Your task to perform on an android device: turn vacation reply on in the gmail app Image 0: 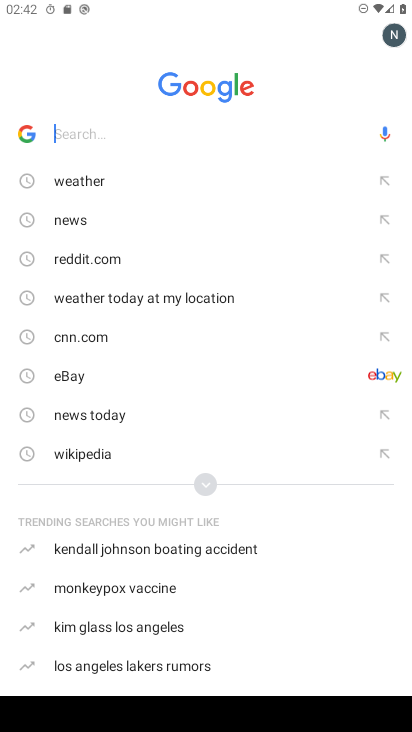
Step 0: press home button
Your task to perform on an android device: turn vacation reply on in the gmail app Image 1: 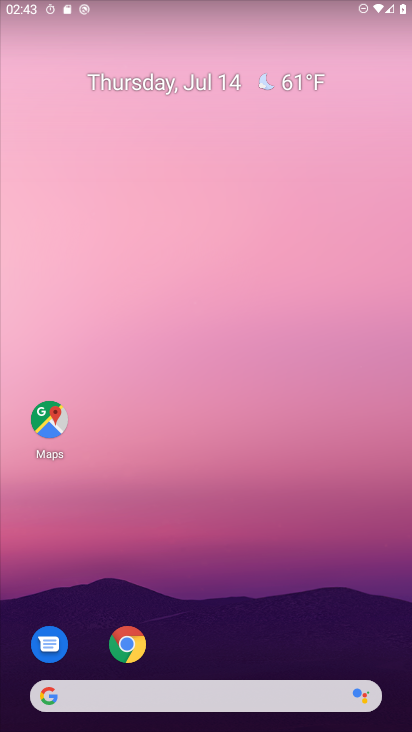
Step 1: drag from (305, 555) to (139, 39)
Your task to perform on an android device: turn vacation reply on in the gmail app Image 2: 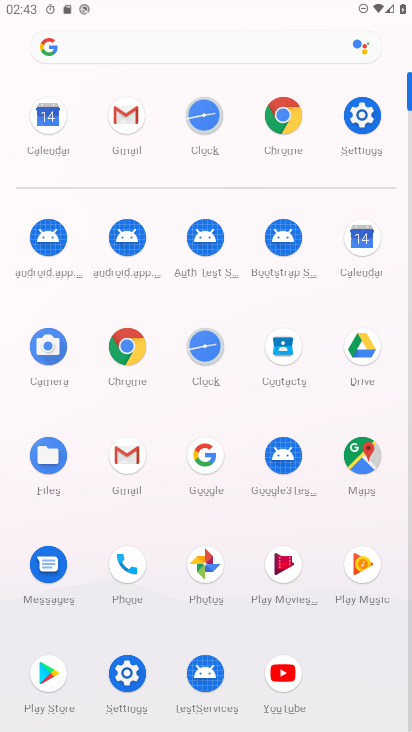
Step 2: click (126, 116)
Your task to perform on an android device: turn vacation reply on in the gmail app Image 3: 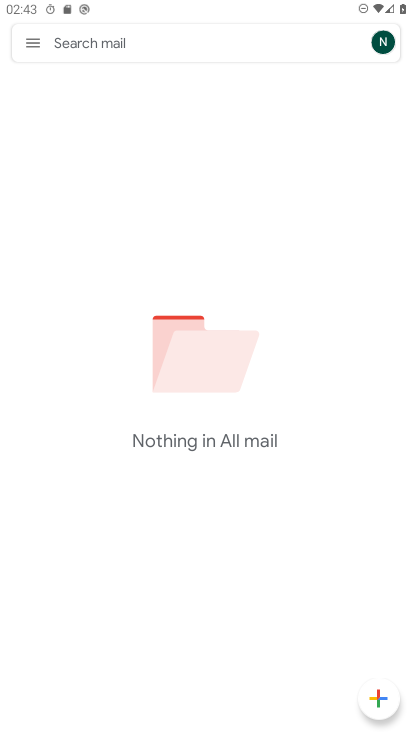
Step 3: click (21, 42)
Your task to perform on an android device: turn vacation reply on in the gmail app Image 4: 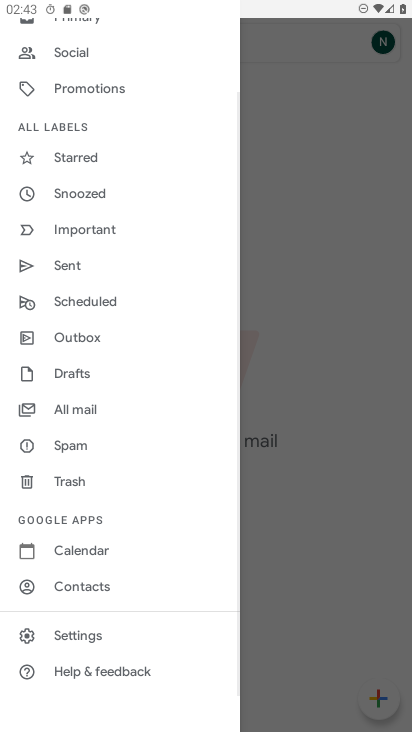
Step 4: click (87, 635)
Your task to perform on an android device: turn vacation reply on in the gmail app Image 5: 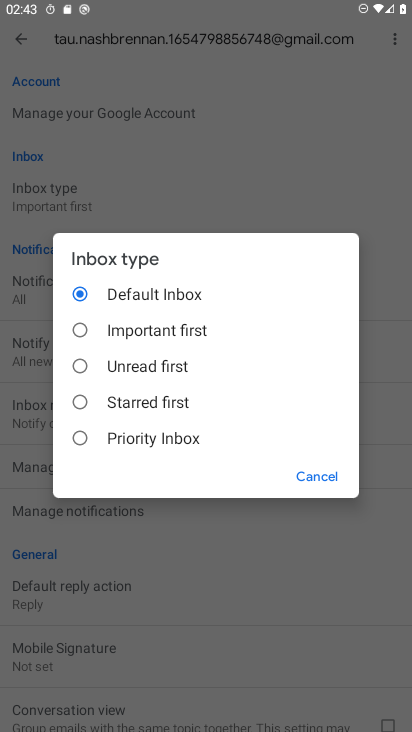
Step 5: click (324, 472)
Your task to perform on an android device: turn vacation reply on in the gmail app Image 6: 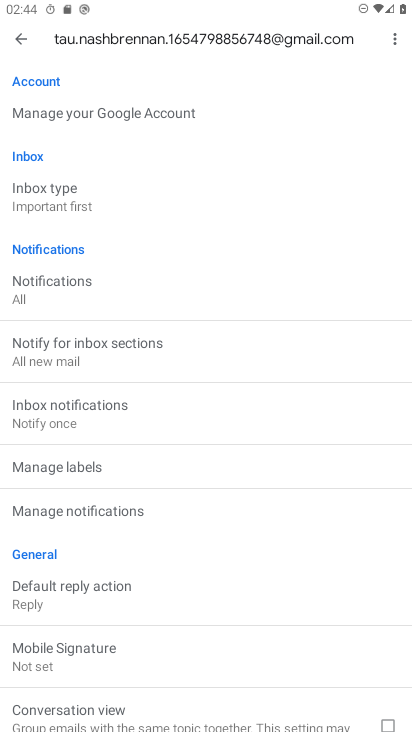
Step 6: drag from (205, 608) to (167, 75)
Your task to perform on an android device: turn vacation reply on in the gmail app Image 7: 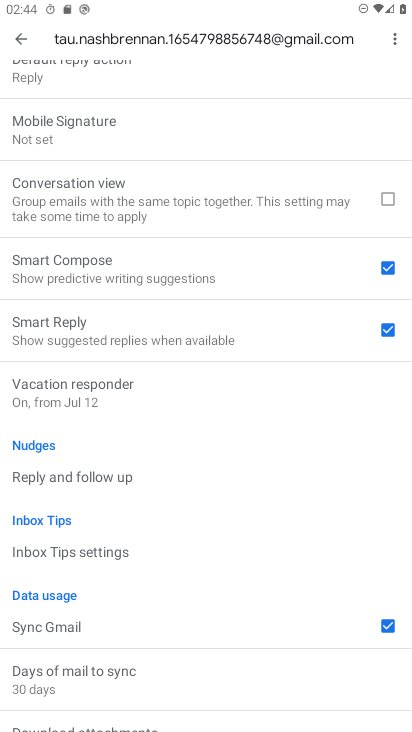
Step 7: click (110, 385)
Your task to perform on an android device: turn vacation reply on in the gmail app Image 8: 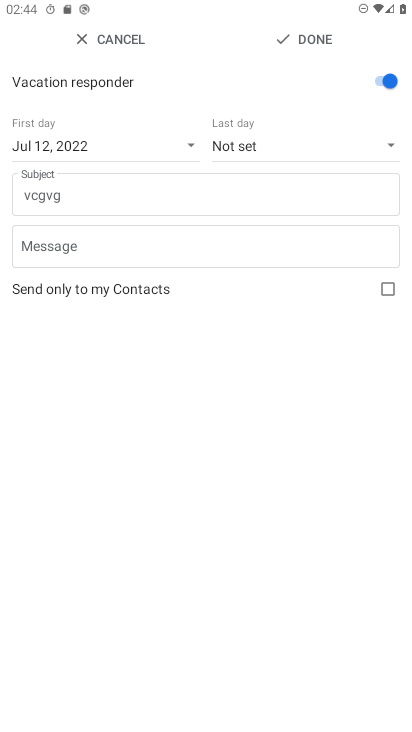
Step 8: task complete